Your task to perform on an android device: snooze an email in the gmail app Image 0: 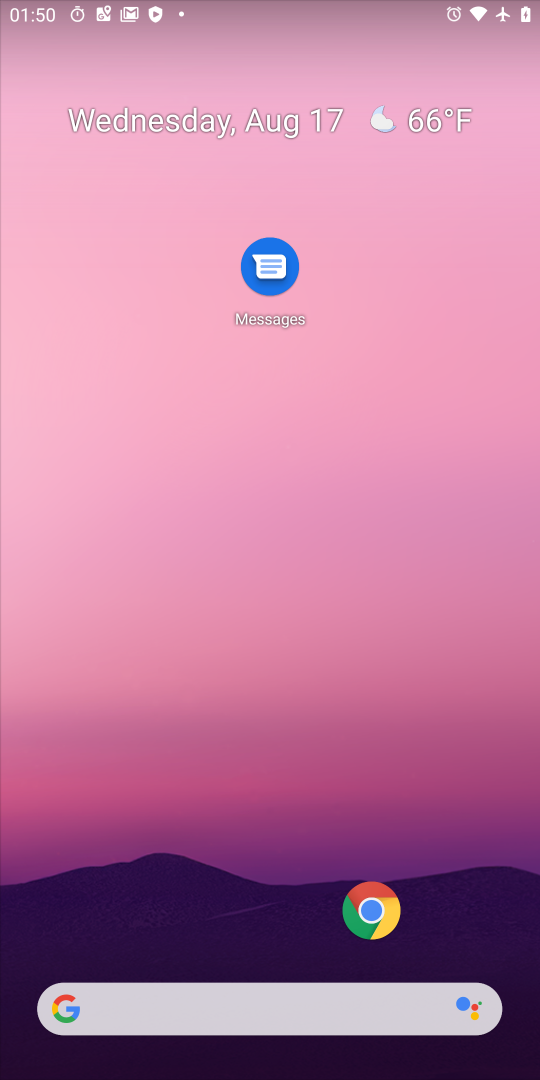
Step 0: drag from (193, 760) to (196, 8)
Your task to perform on an android device: snooze an email in the gmail app Image 1: 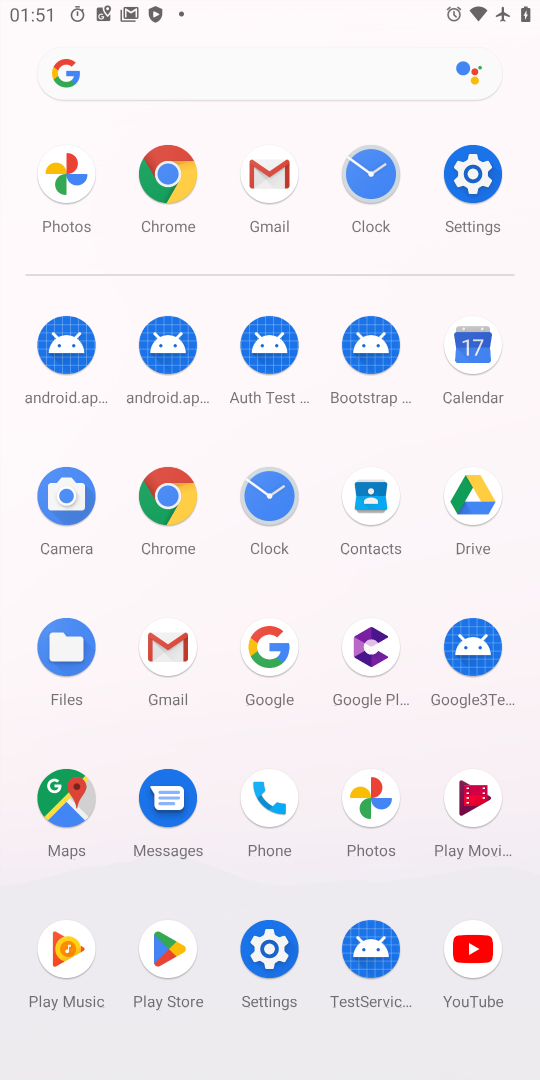
Step 1: click (171, 638)
Your task to perform on an android device: snooze an email in the gmail app Image 2: 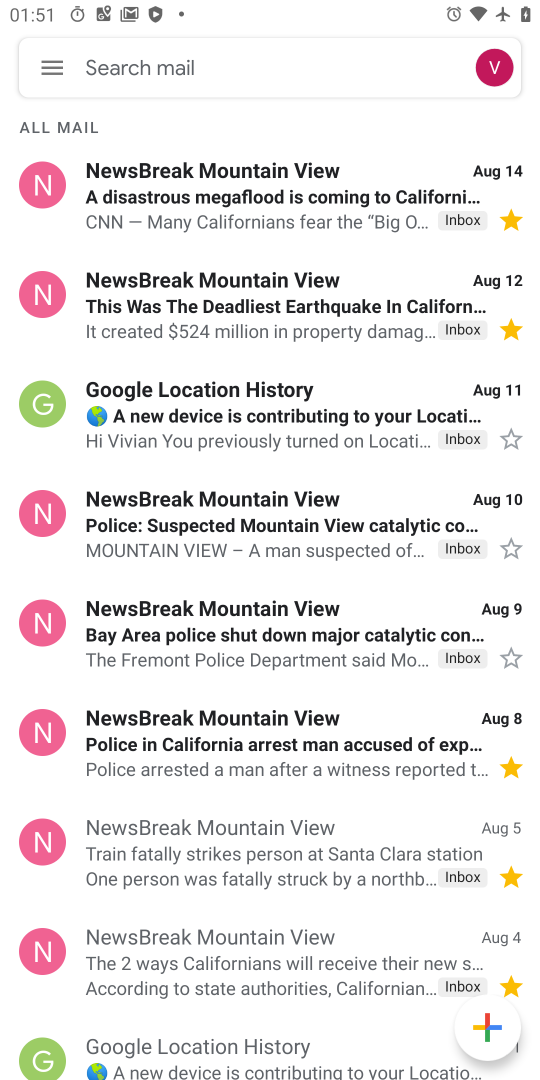
Step 2: click (244, 676)
Your task to perform on an android device: snooze an email in the gmail app Image 3: 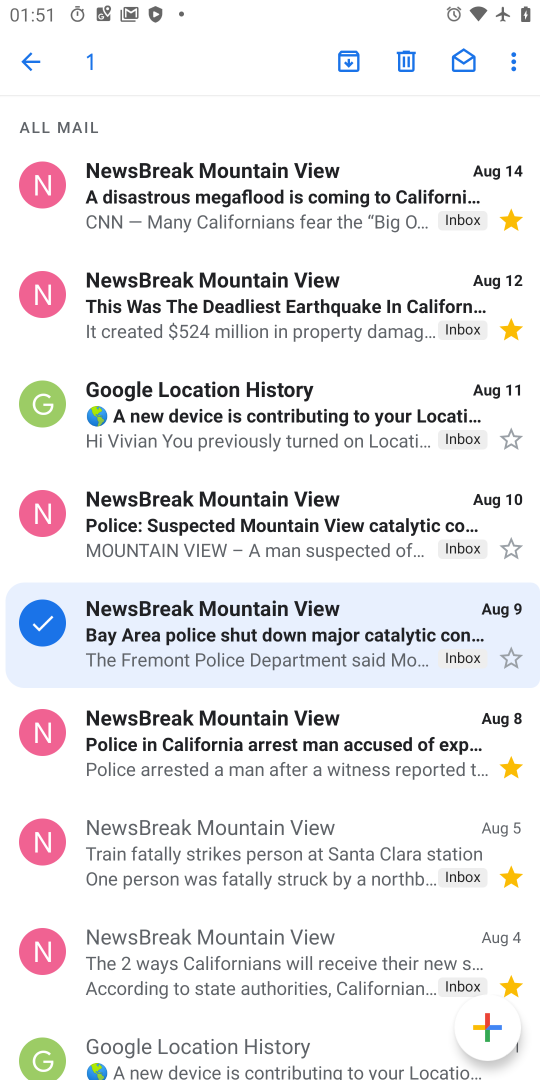
Step 3: click (504, 48)
Your task to perform on an android device: snooze an email in the gmail app Image 4: 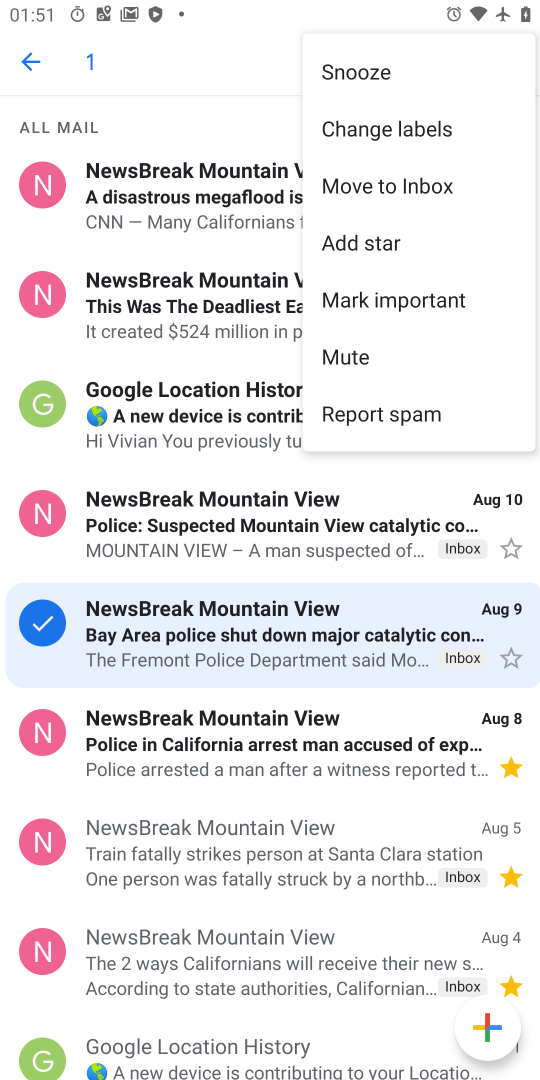
Step 4: click (378, 61)
Your task to perform on an android device: snooze an email in the gmail app Image 5: 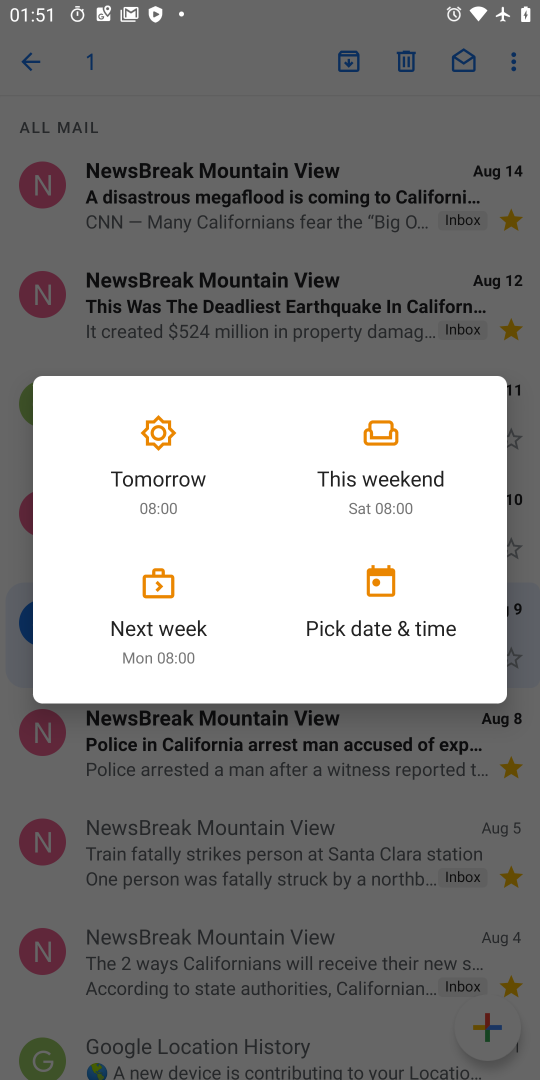
Step 5: click (118, 447)
Your task to perform on an android device: snooze an email in the gmail app Image 6: 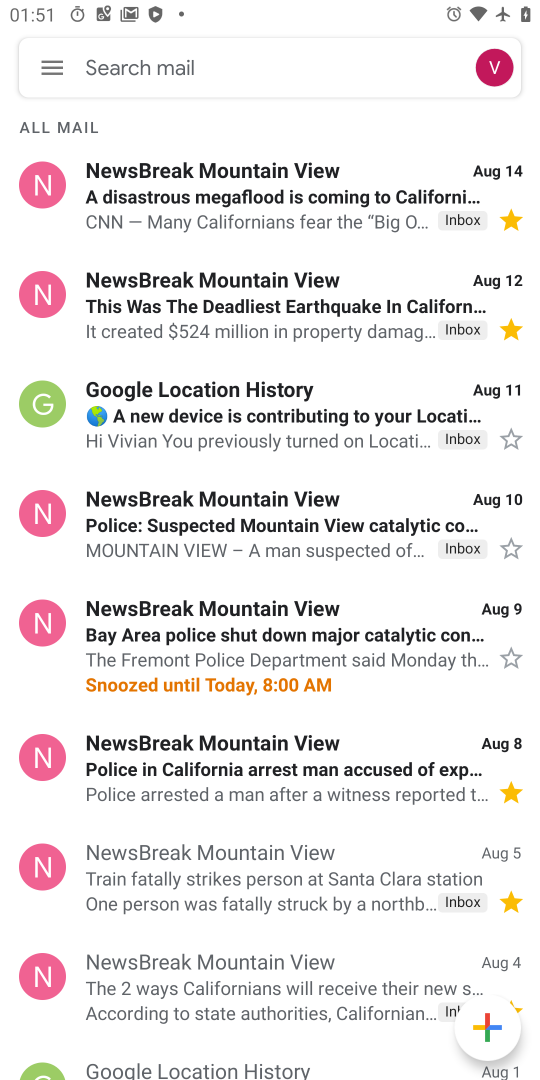
Step 6: task complete